Your task to perform on an android device: Open Chrome and go to the settings page Image 0: 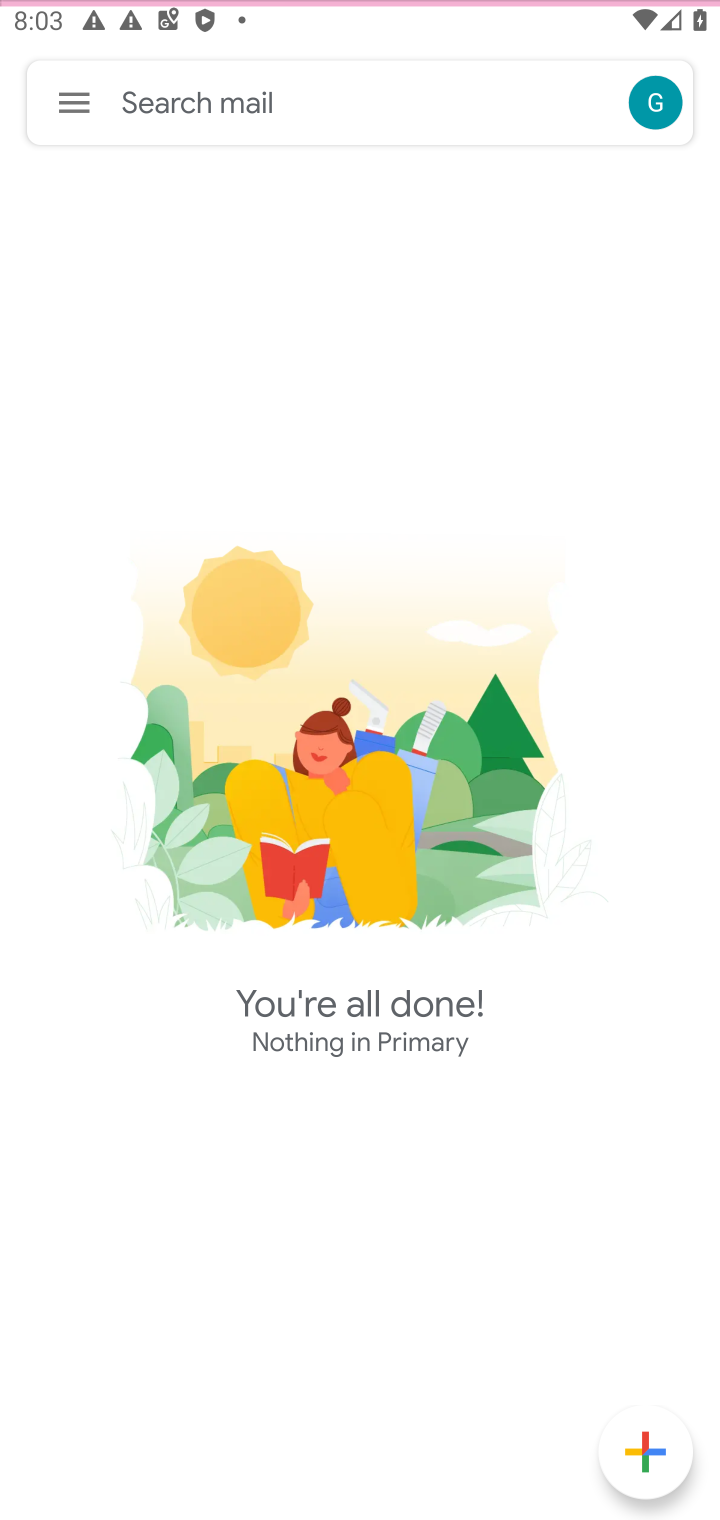
Step 0: click (30, 85)
Your task to perform on an android device: Open Chrome and go to the settings page Image 1: 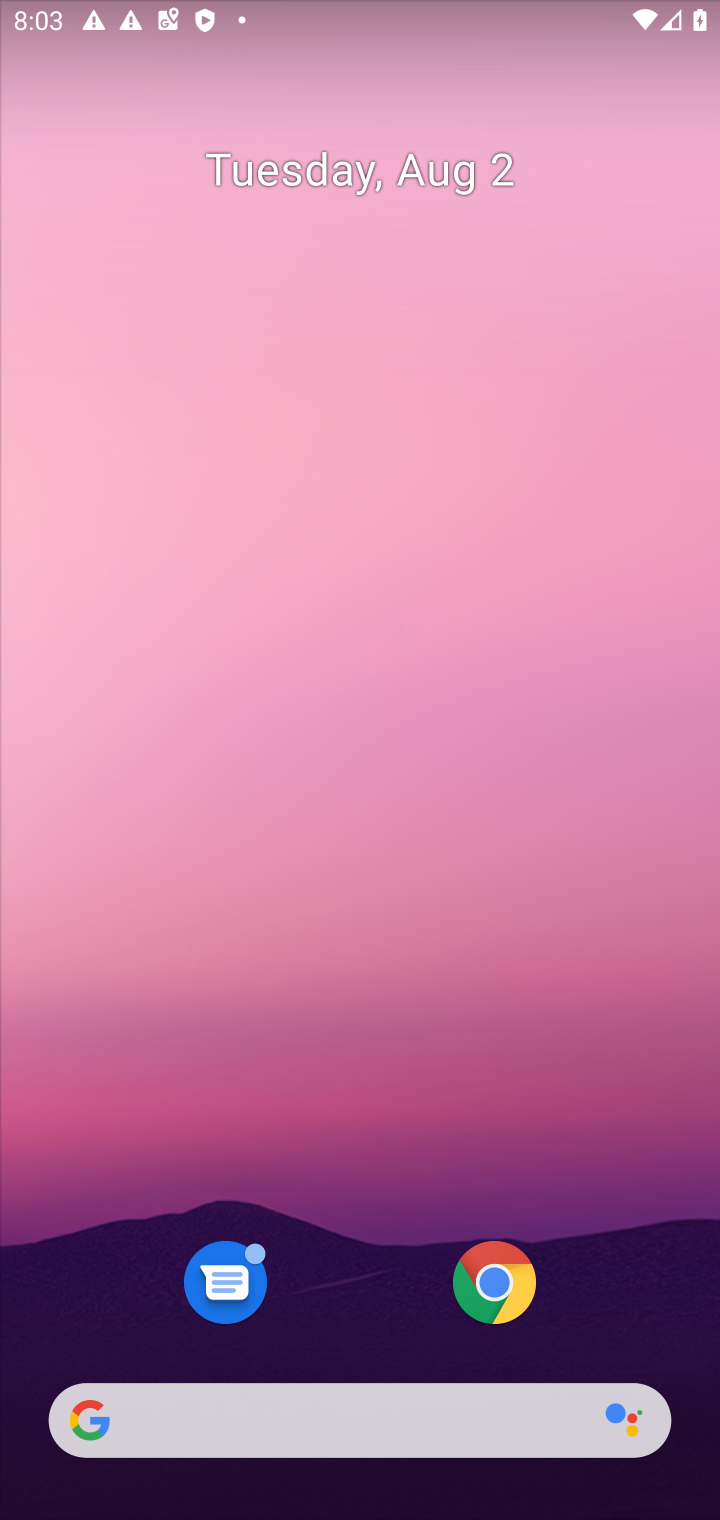
Step 1: press back button
Your task to perform on an android device: Open Chrome and go to the settings page Image 2: 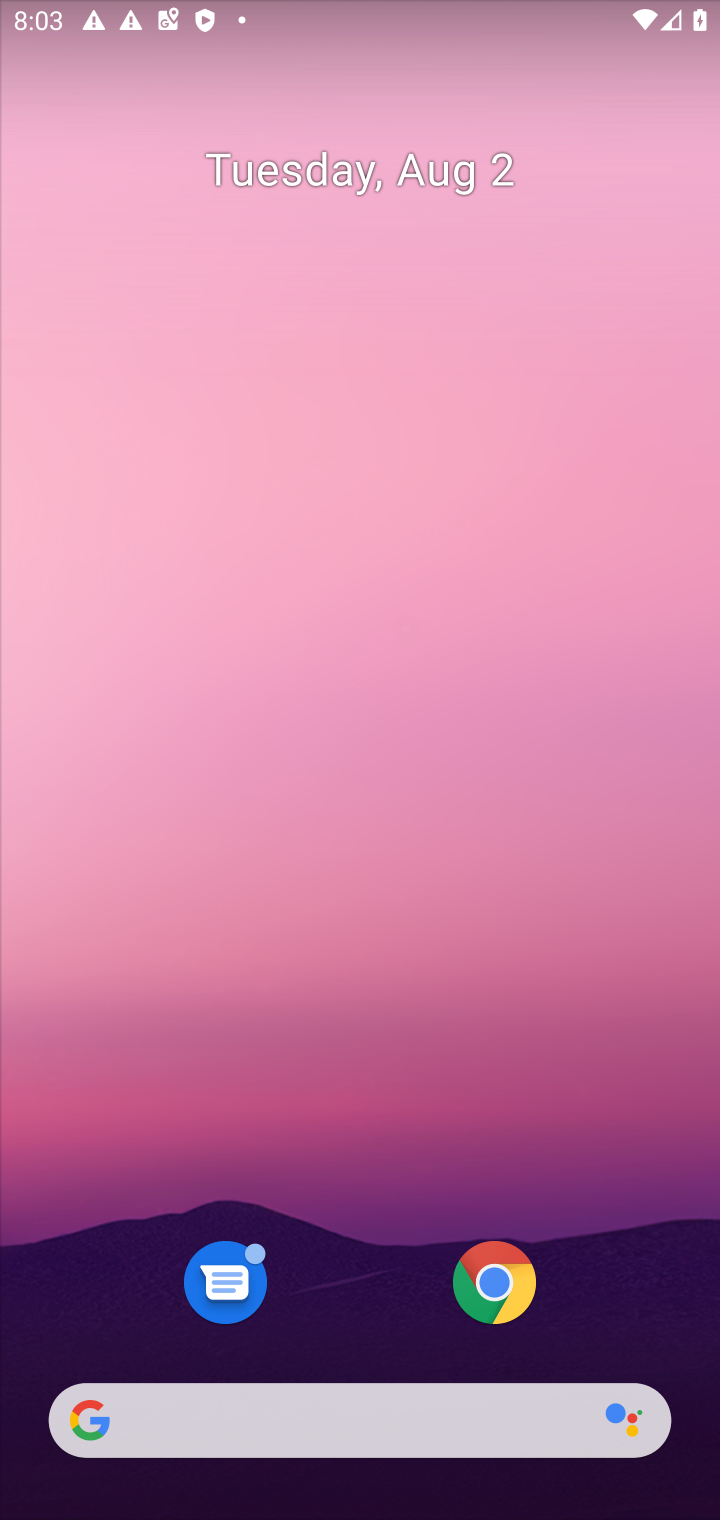
Step 2: drag from (387, 1311) to (420, 0)
Your task to perform on an android device: Open Chrome and go to the settings page Image 3: 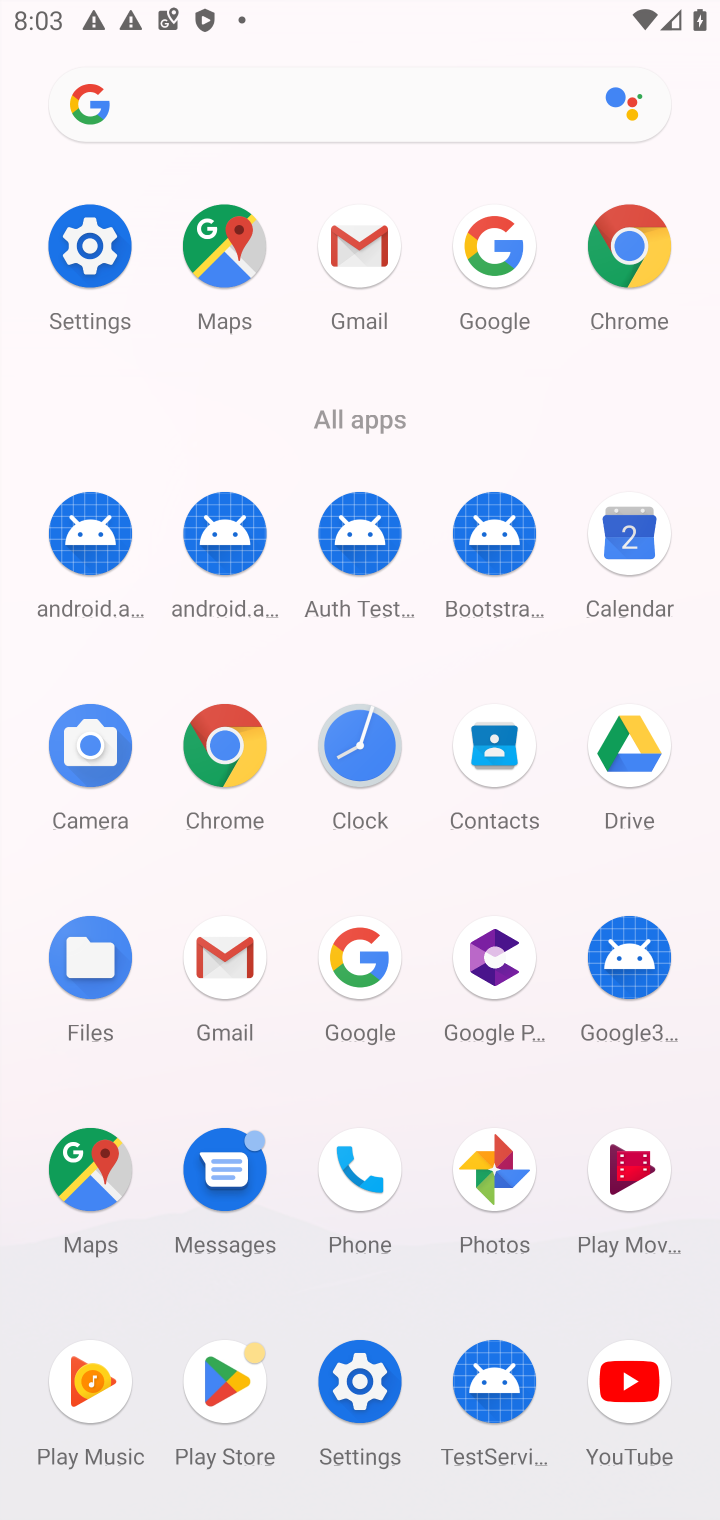
Step 3: click (190, 789)
Your task to perform on an android device: Open Chrome and go to the settings page Image 4: 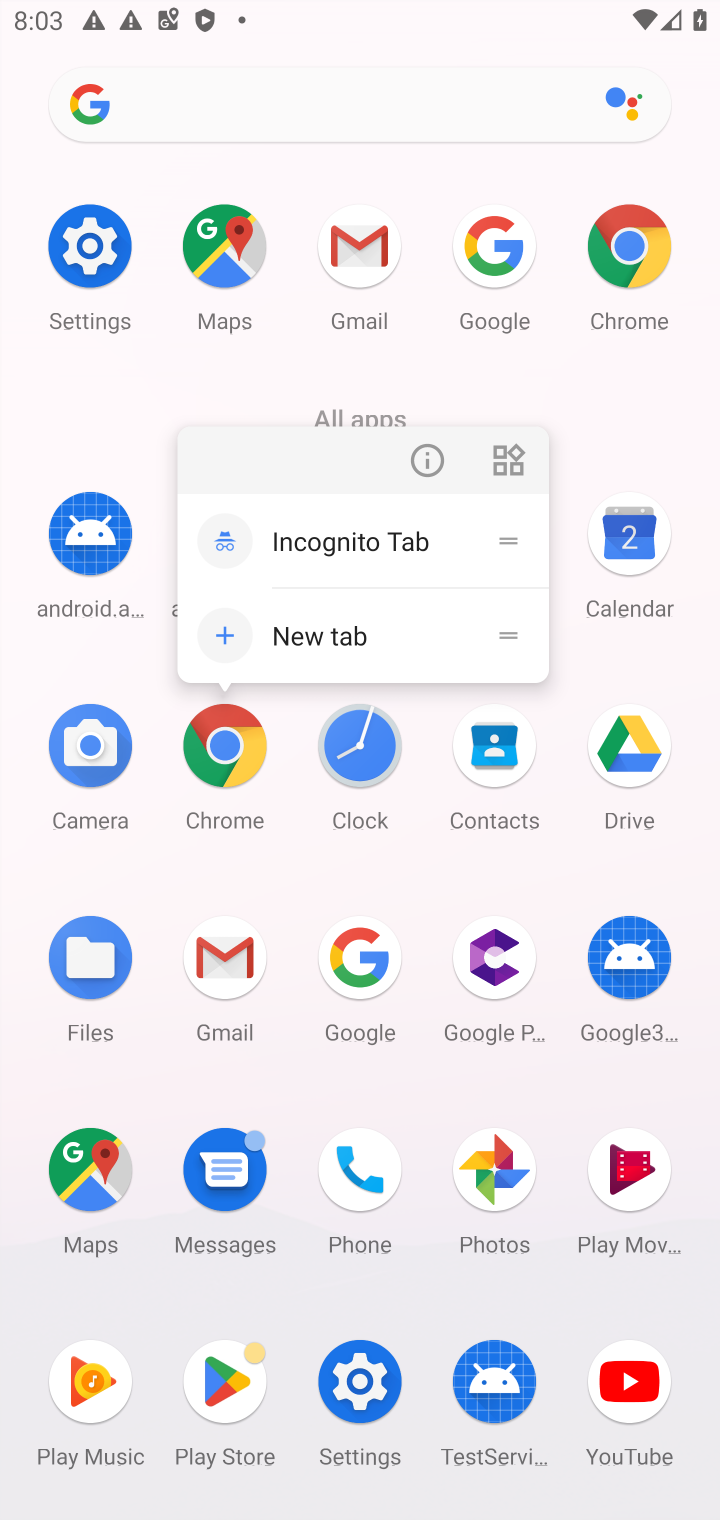
Step 4: click (211, 768)
Your task to perform on an android device: Open Chrome and go to the settings page Image 5: 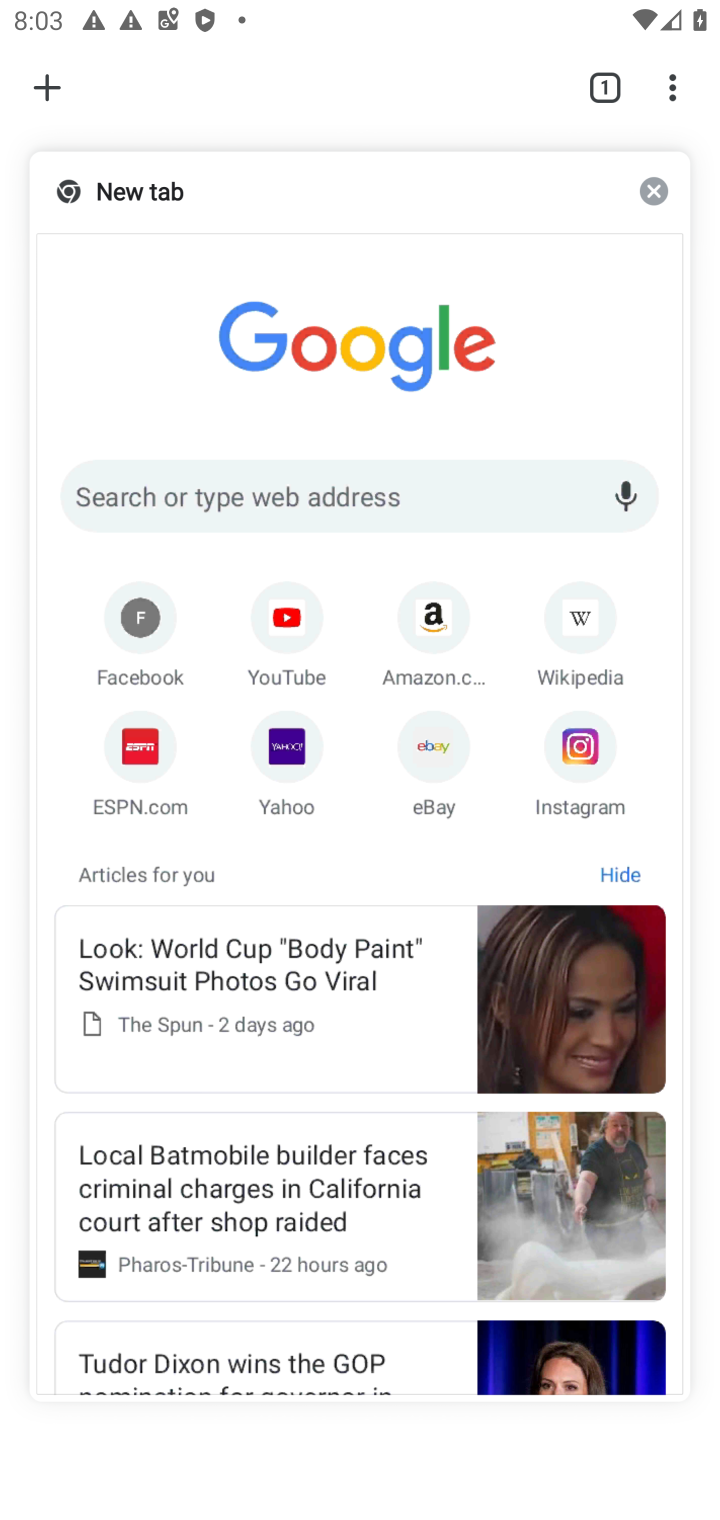
Step 5: click (614, 258)
Your task to perform on an android device: Open Chrome and go to the settings page Image 6: 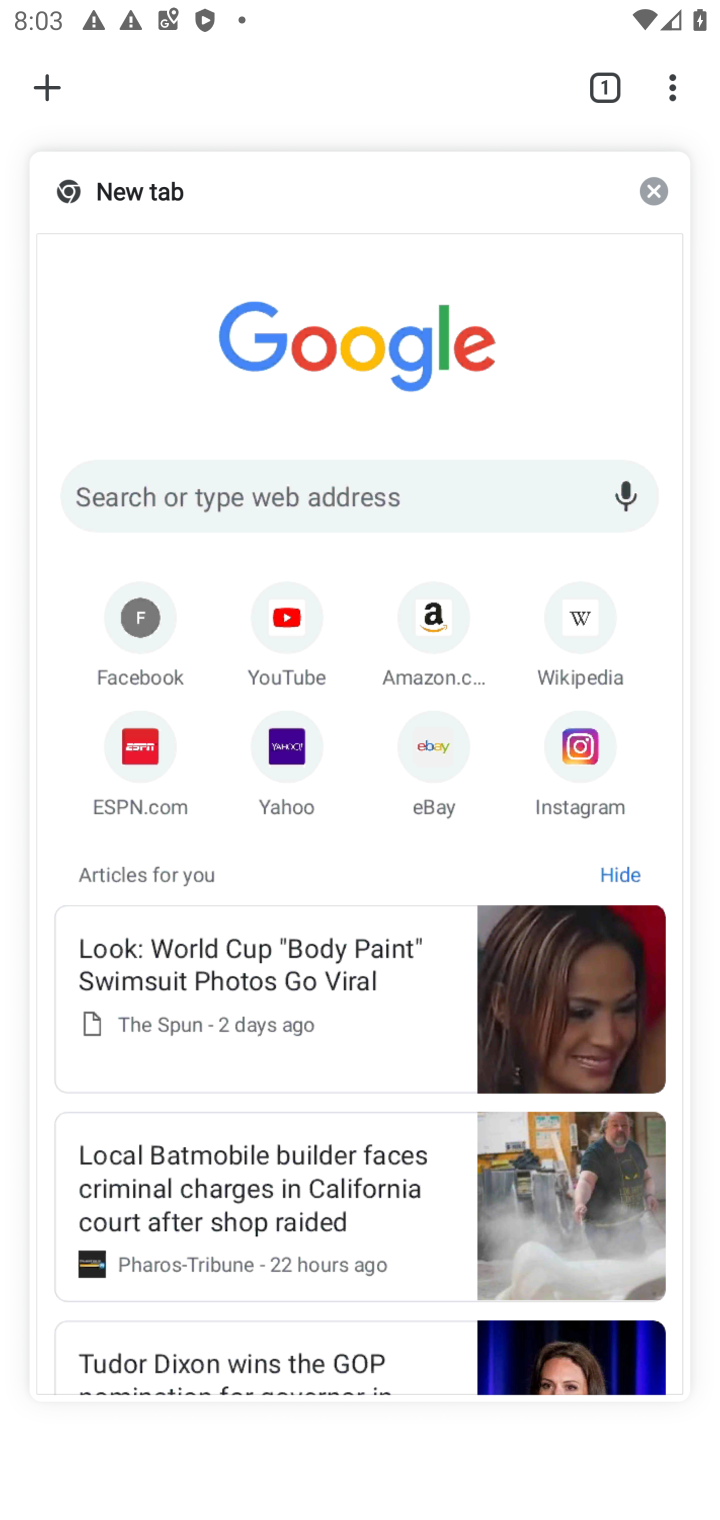
Step 6: click (611, 437)
Your task to perform on an android device: Open Chrome and go to the settings page Image 7: 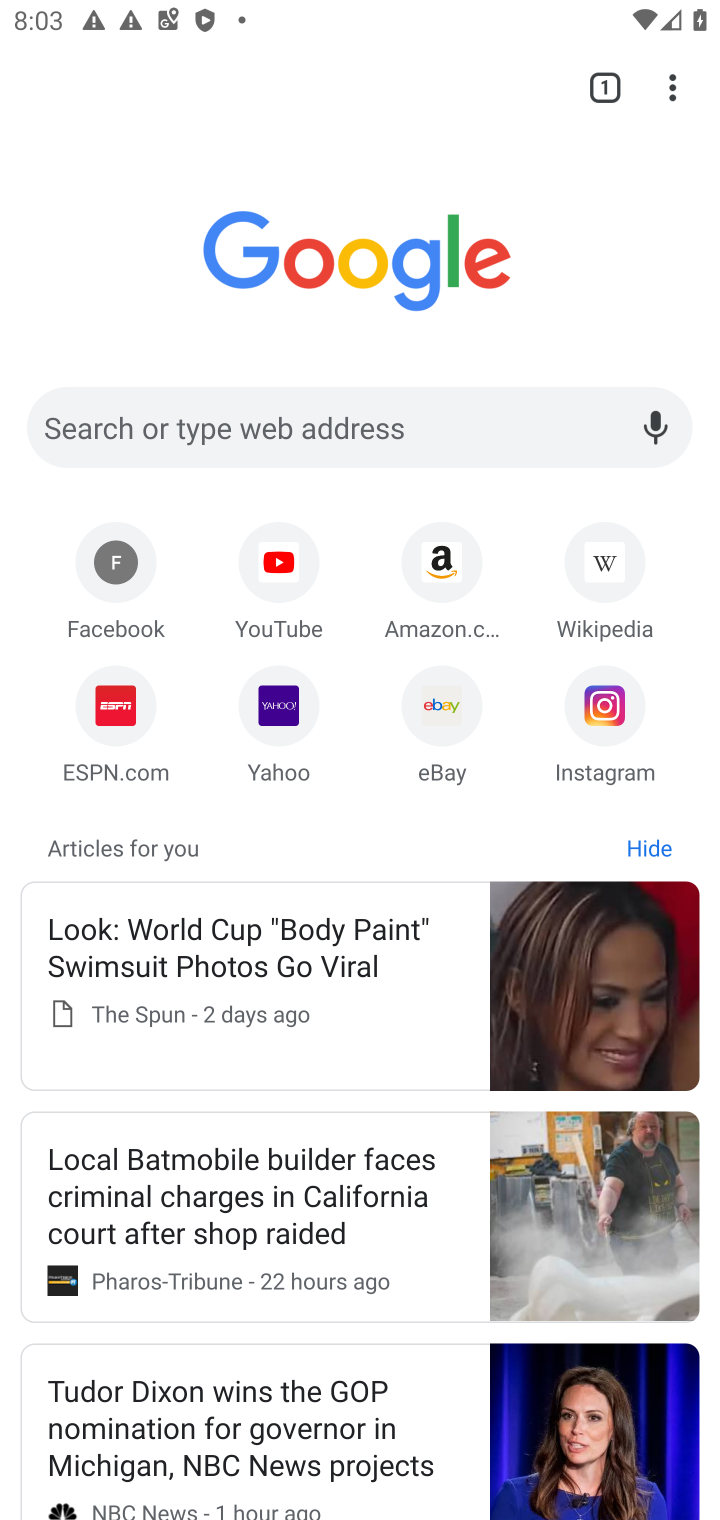
Step 7: click (666, 83)
Your task to perform on an android device: Open Chrome and go to the settings page Image 8: 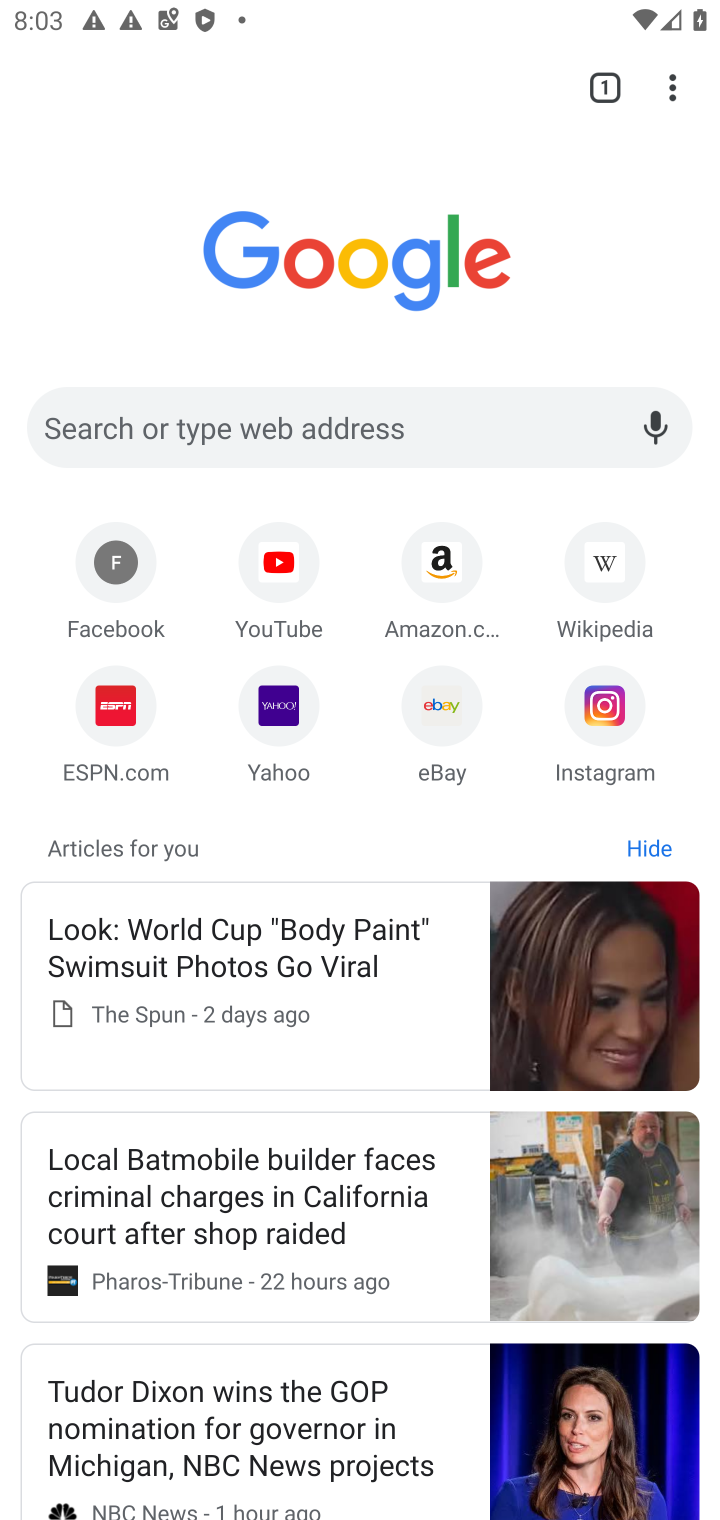
Step 8: task complete